Your task to perform on an android device: Open accessibility settings Image 0: 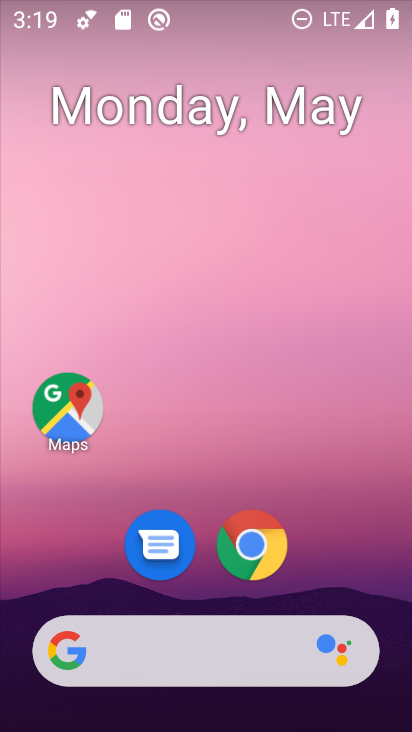
Step 0: drag from (314, 466) to (289, 49)
Your task to perform on an android device: Open accessibility settings Image 1: 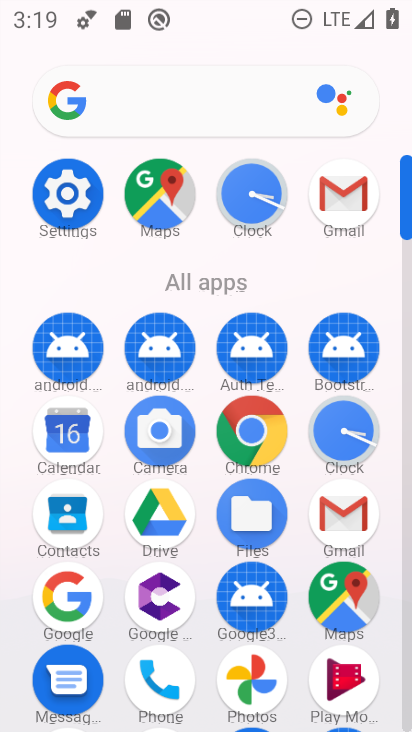
Step 1: click (69, 210)
Your task to perform on an android device: Open accessibility settings Image 2: 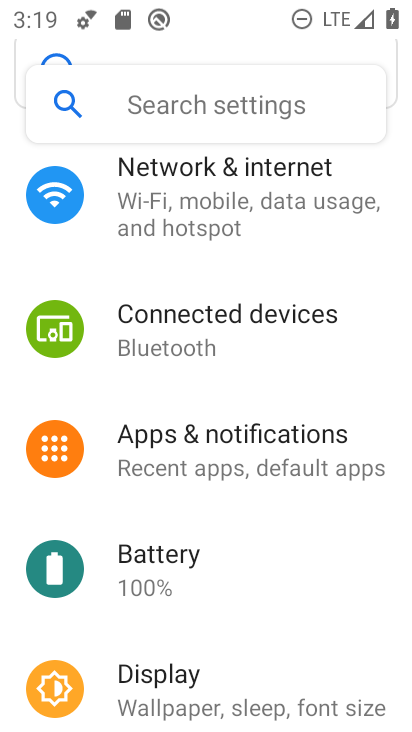
Step 2: drag from (247, 665) to (269, 262)
Your task to perform on an android device: Open accessibility settings Image 3: 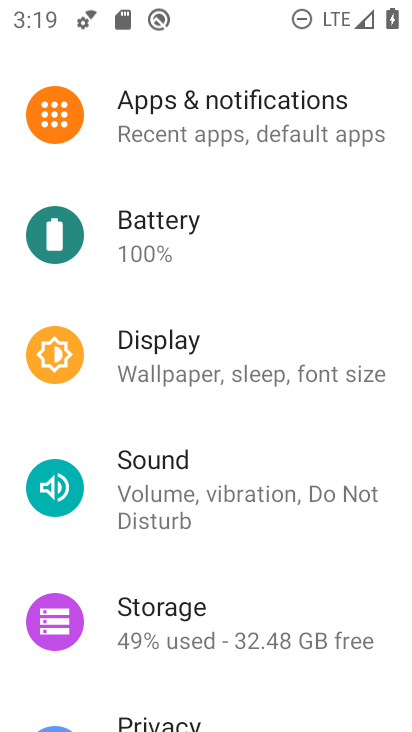
Step 3: drag from (247, 502) to (263, 273)
Your task to perform on an android device: Open accessibility settings Image 4: 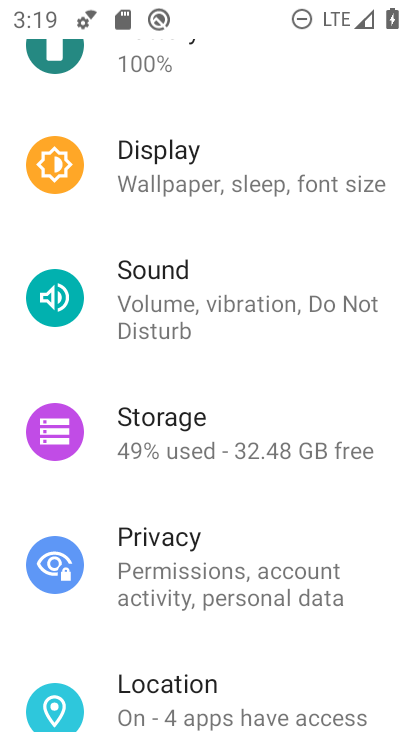
Step 4: drag from (316, 587) to (330, 199)
Your task to perform on an android device: Open accessibility settings Image 5: 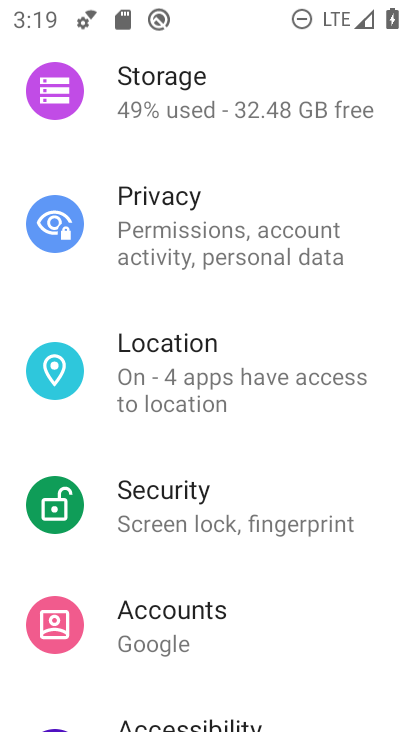
Step 5: drag from (276, 626) to (325, 221)
Your task to perform on an android device: Open accessibility settings Image 6: 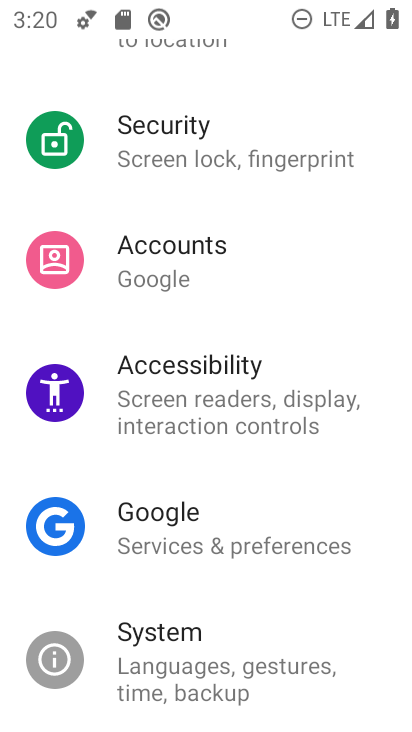
Step 6: drag from (330, 572) to (329, 228)
Your task to perform on an android device: Open accessibility settings Image 7: 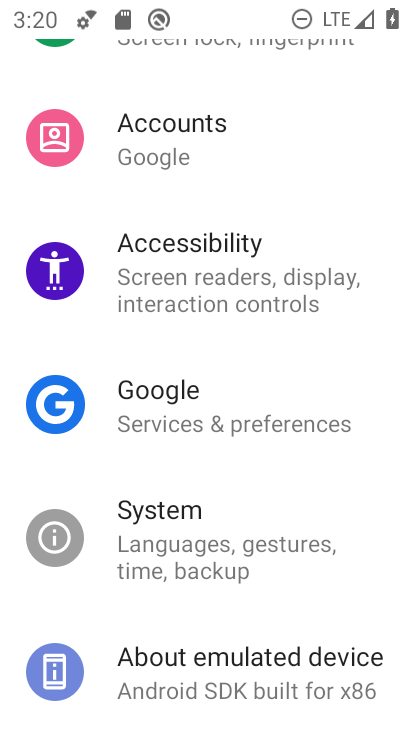
Step 7: click (233, 281)
Your task to perform on an android device: Open accessibility settings Image 8: 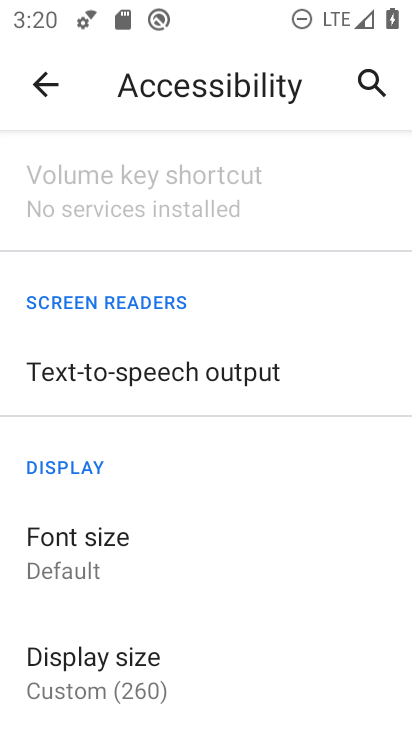
Step 8: task complete